Your task to perform on an android device: What is the recent news? Image 0: 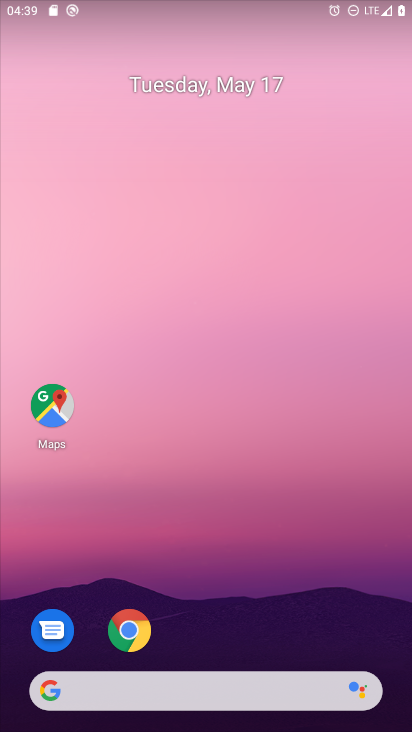
Step 0: drag from (216, 646) to (266, 212)
Your task to perform on an android device: What is the recent news? Image 1: 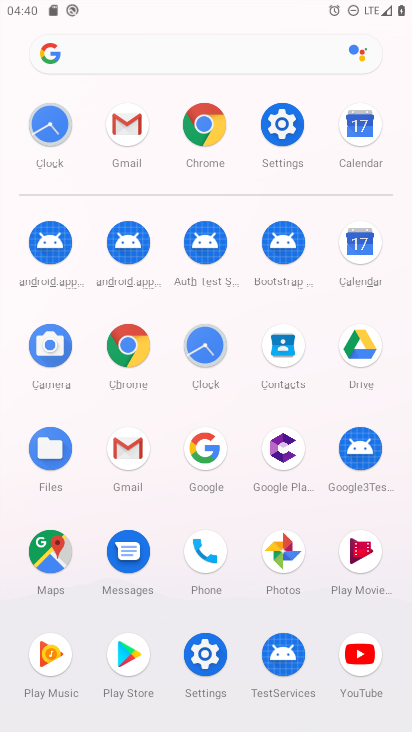
Step 1: click (139, 55)
Your task to perform on an android device: What is the recent news? Image 2: 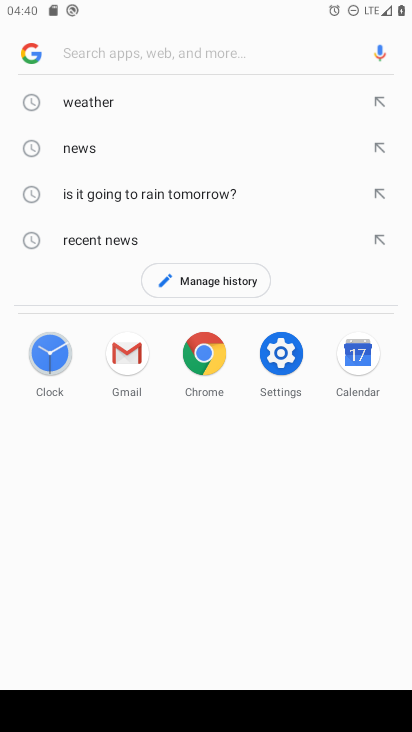
Step 2: click (108, 242)
Your task to perform on an android device: What is the recent news? Image 3: 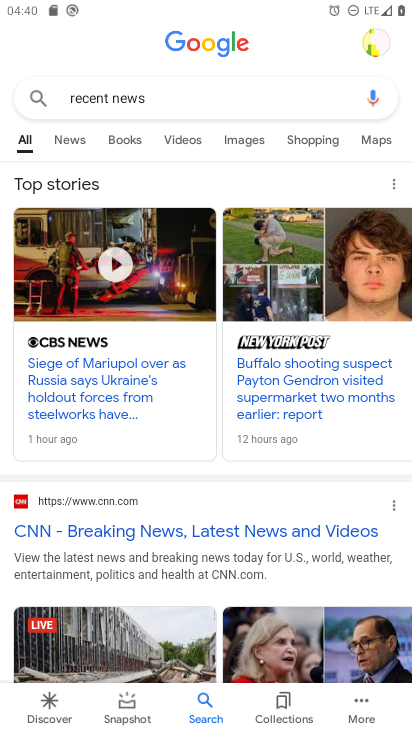
Step 3: task complete